Your task to perform on an android device: Go to location settings Image 0: 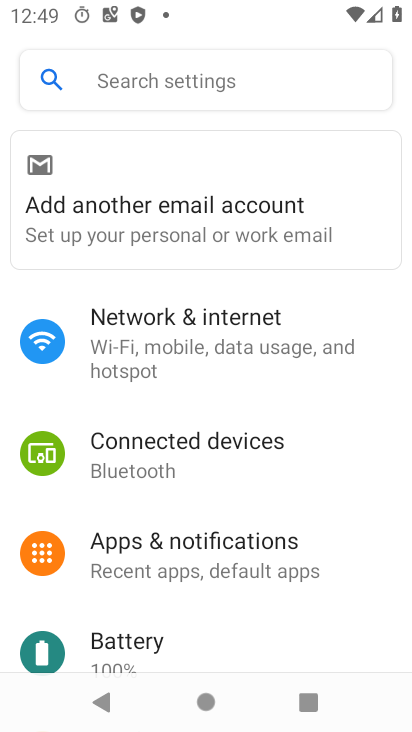
Step 0: press home button
Your task to perform on an android device: Go to location settings Image 1: 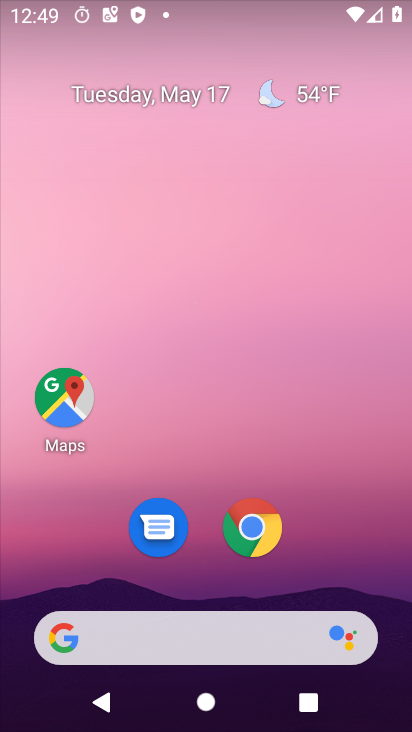
Step 1: drag from (251, 676) to (370, 118)
Your task to perform on an android device: Go to location settings Image 2: 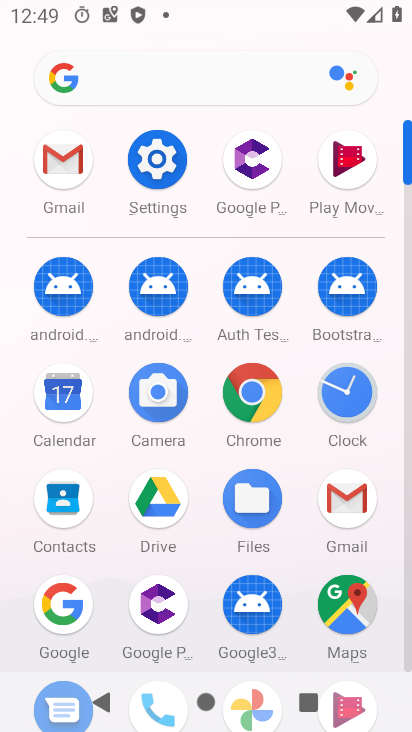
Step 2: click (172, 174)
Your task to perform on an android device: Go to location settings Image 3: 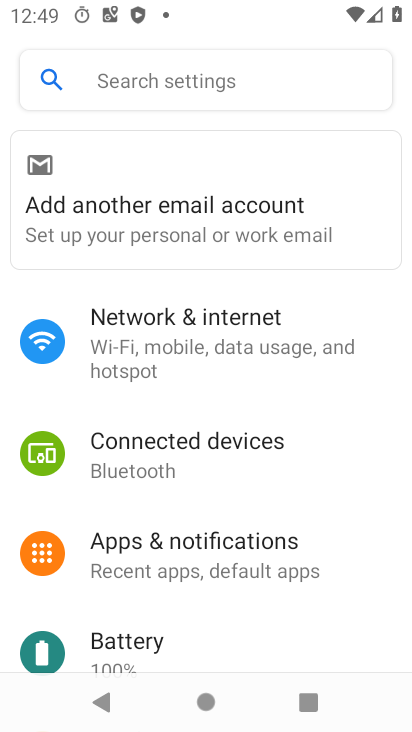
Step 3: click (152, 71)
Your task to perform on an android device: Go to location settings Image 4: 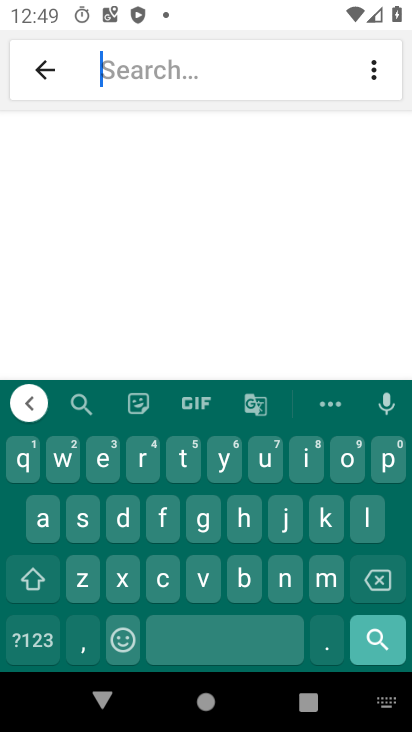
Step 4: click (372, 521)
Your task to perform on an android device: Go to location settings Image 5: 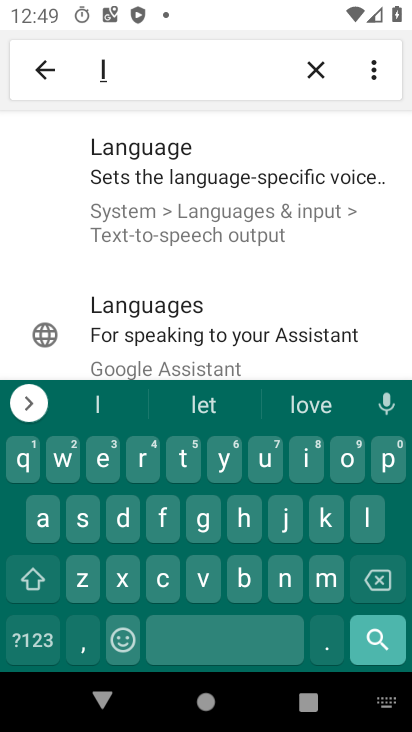
Step 5: click (343, 470)
Your task to perform on an android device: Go to location settings Image 6: 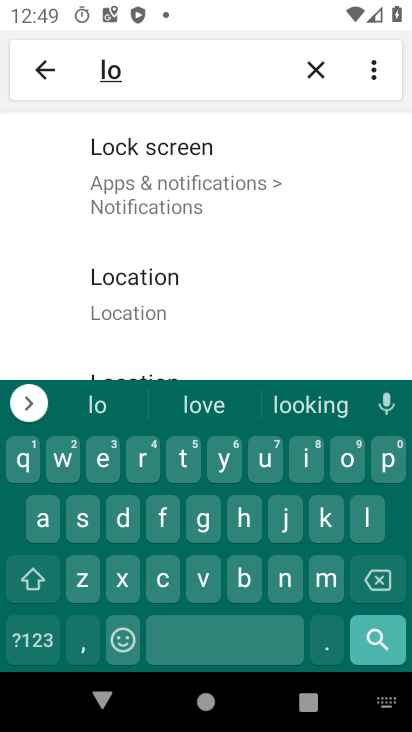
Step 6: click (136, 283)
Your task to perform on an android device: Go to location settings Image 7: 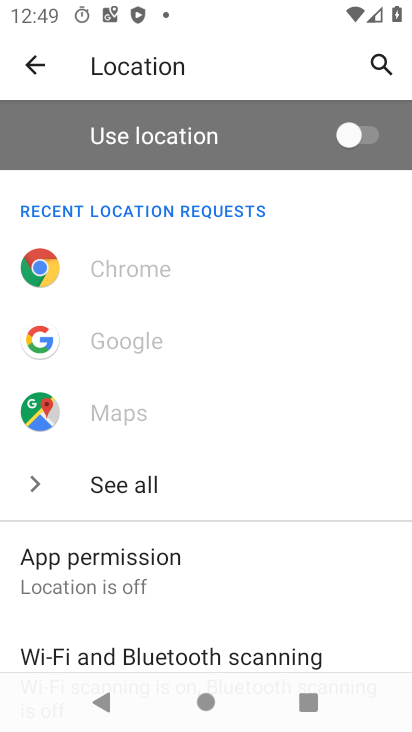
Step 7: task complete